Your task to perform on an android device: Show me popular games on the Play Store Image 0: 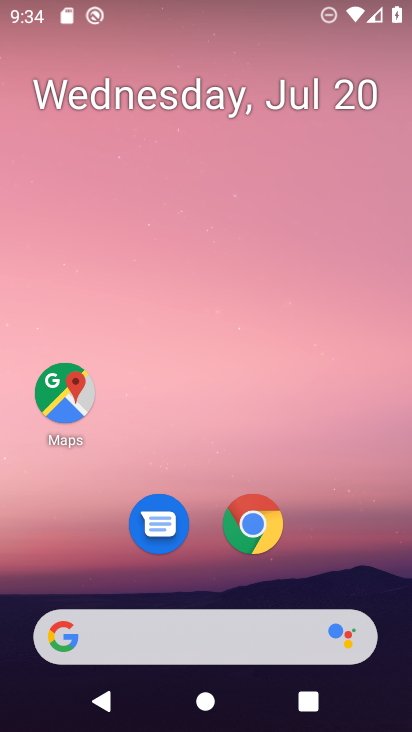
Step 0: drag from (202, 628) to (324, 157)
Your task to perform on an android device: Show me popular games on the Play Store Image 1: 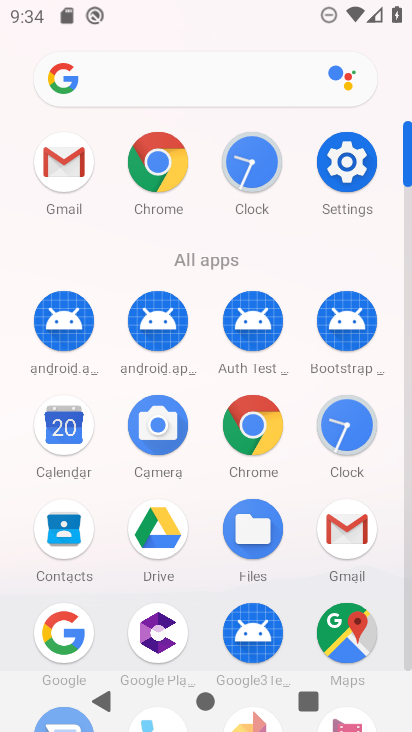
Step 1: drag from (206, 598) to (303, 143)
Your task to perform on an android device: Show me popular games on the Play Store Image 2: 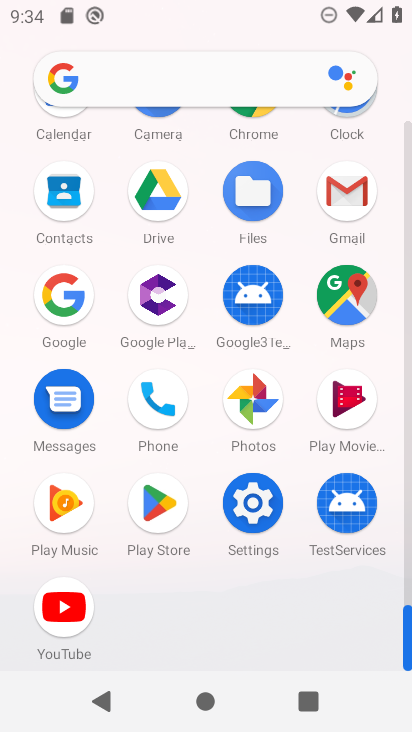
Step 2: click (150, 507)
Your task to perform on an android device: Show me popular games on the Play Store Image 3: 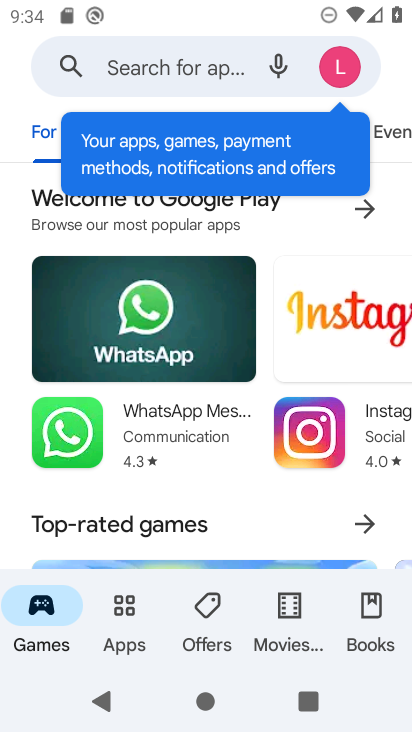
Step 3: drag from (234, 508) to (360, 99)
Your task to perform on an android device: Show me popular games on the Play Store Image 4: 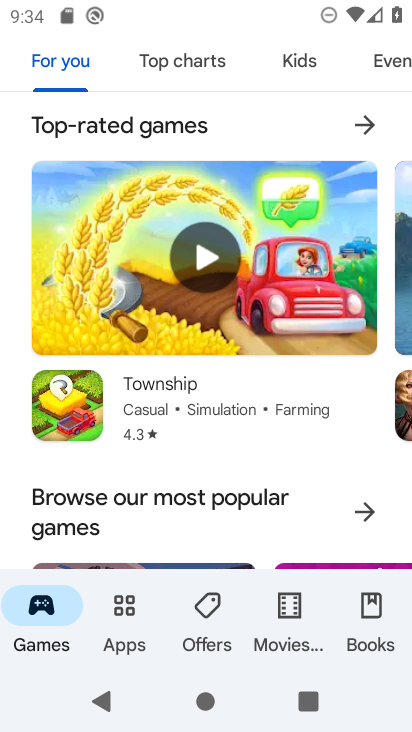
Step 4: click (361, 509)
Your task to perform on an android device: Show me popular games on the Play Store Image 5: 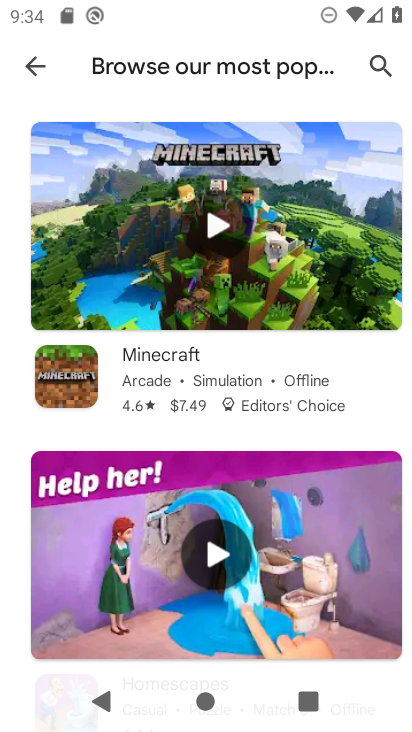
Step 5: task complete